Your task to perform on an android device: turn off priority inbox in the gmail app Image 0: 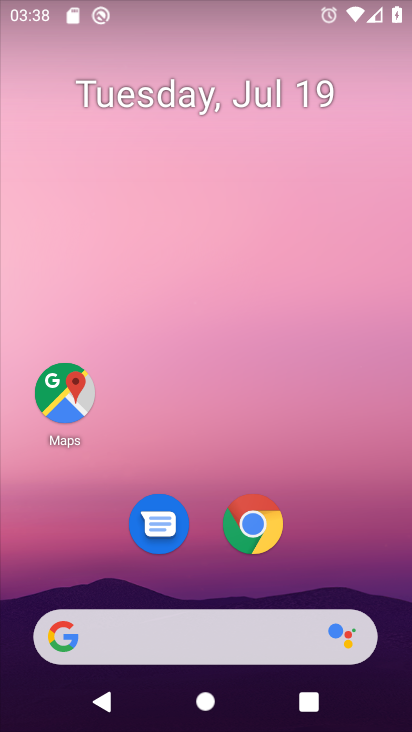
Step 0: drag from (300, 556) to (259, 50)
Your task to perform on an android device: turn off priority inbox in the gmail app Image 1: 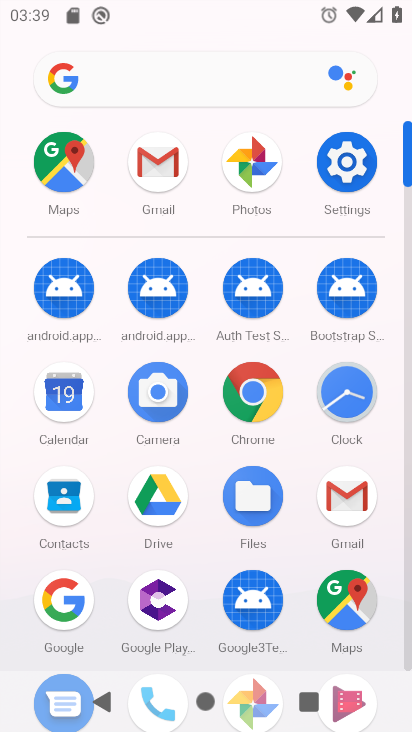
Step 1: click (166, 162)
Your task to perform on an android device: turn off priority inbox in the gmail app Image 2: 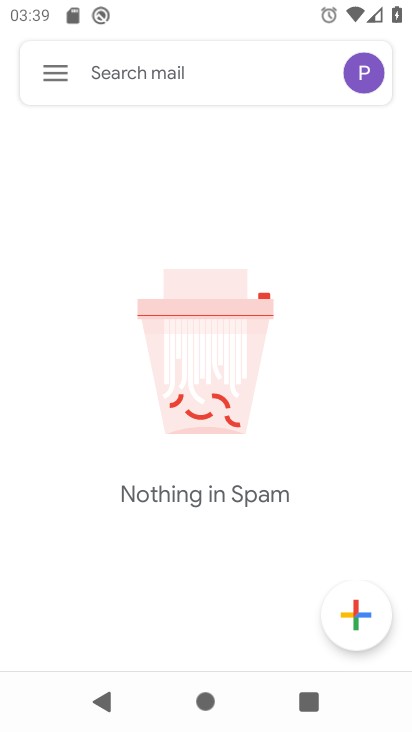
Step 2: click (53, 75)
Your task to perform on an android device: turn off priority inbox in the gmail app Image 3: 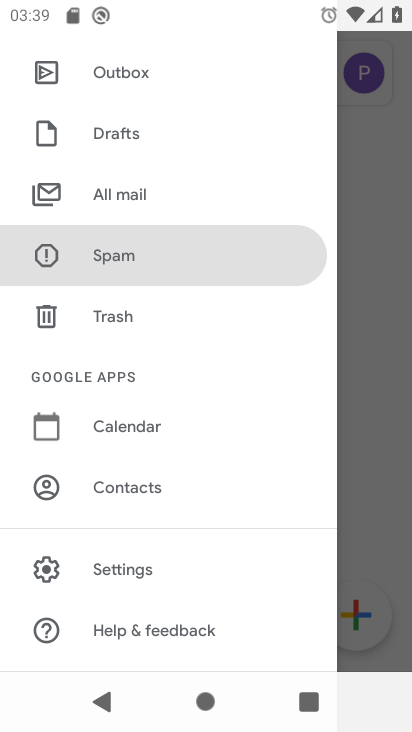
Step 3: click (139, 561)
Your task to perform on an android device: turn off priority inbox in the gmail app Image 4: 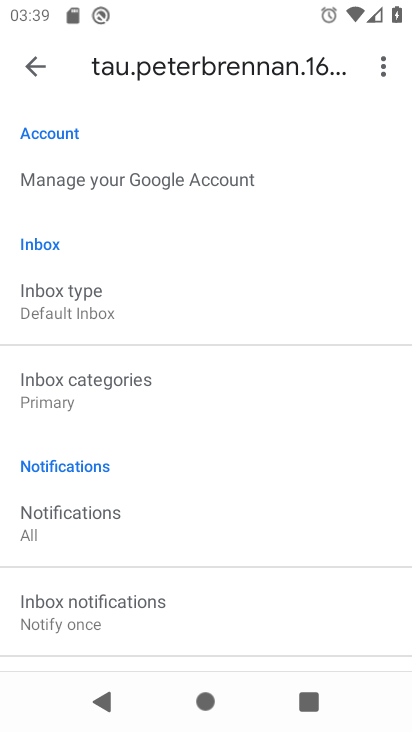
Step 4: click (98, 294)
Your task to perform on an android device: turn off priority inbox in the gmail app Image 5: 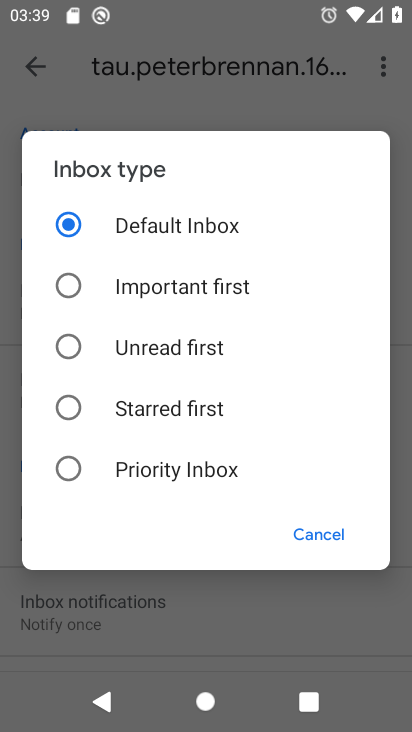
Step 5: click (74, 275)
Your task to perform on an android device: turn off priority inbox in the gmail app Image 6: 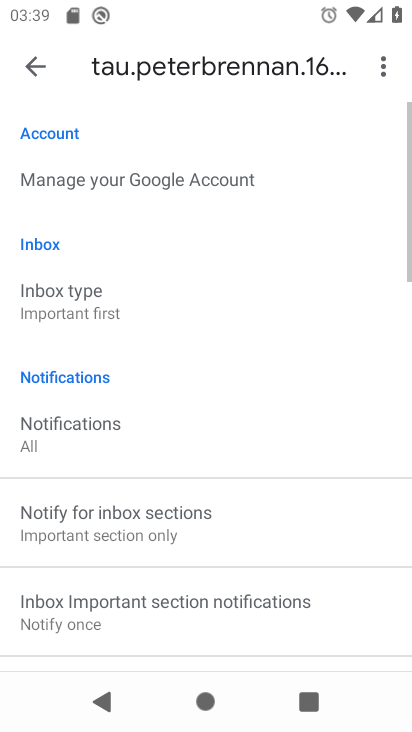
Step 6: task complete